Your task to perform on an android device: open sync settings in chrome Image 0: 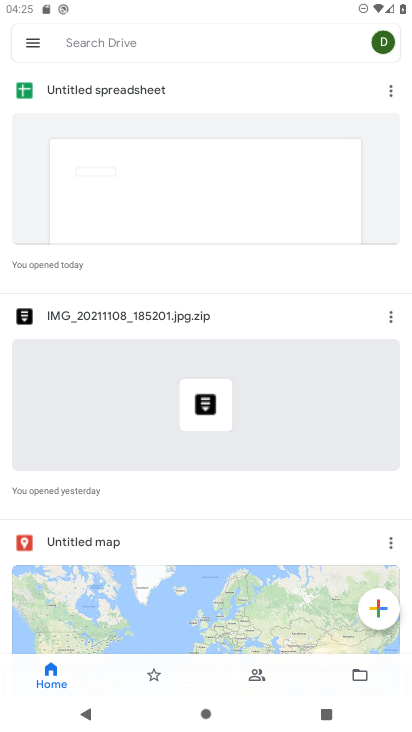
Step 0: press home button
Your task to perform on an android device: open sync settings in chrome Image 1: 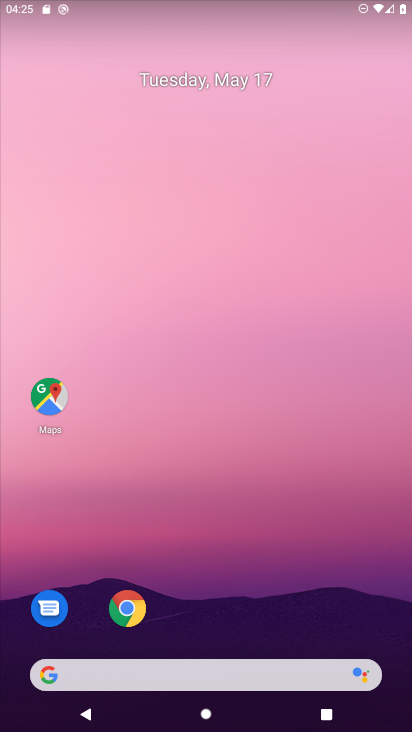
Step 1: click (134, 612)
Your task to perform on an android device: open sync settings in chrome Image 2: 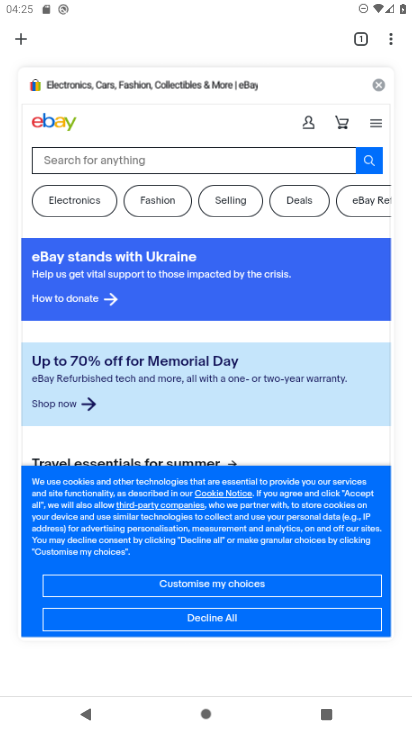
Step 2: click (387, 49)
Your task to perform on an android device: open sync settings in chrome Image 3: 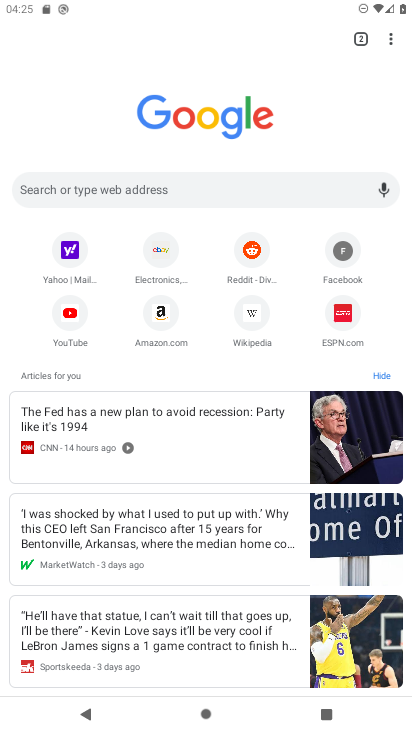
Step 3: click (394, 35)
Your task to perform on an android device: open sync settings in chrome Image 4: 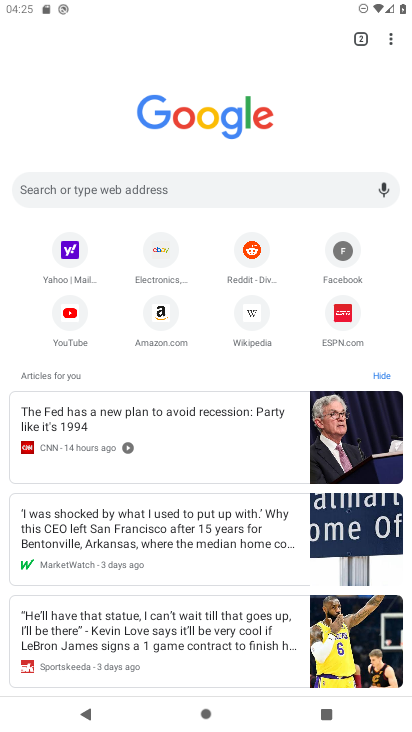
Step 4: click (391, 42)
Your task to perform on an android device: open sync settings in chrome Image 5: 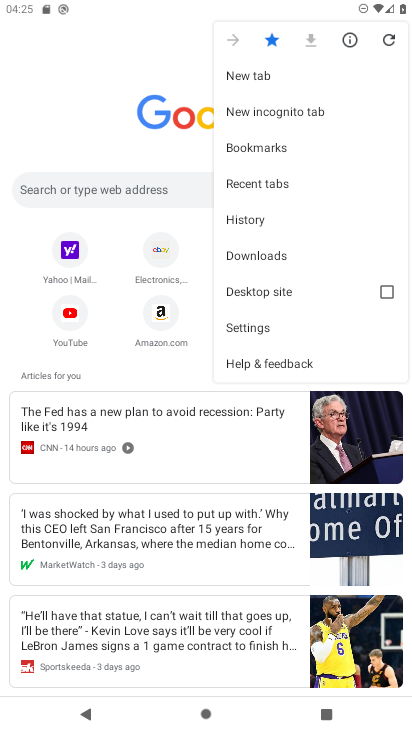
Step 5: click (255, 328)
Your task to perform on an android device: open sync settings in chrome Image 6: 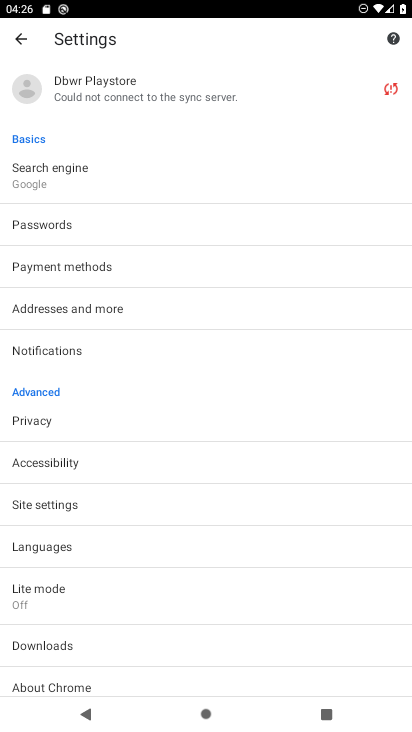
Step 6: click (143, 94)
Your task to perform on an android device: open sync settings in chrome Image 7: 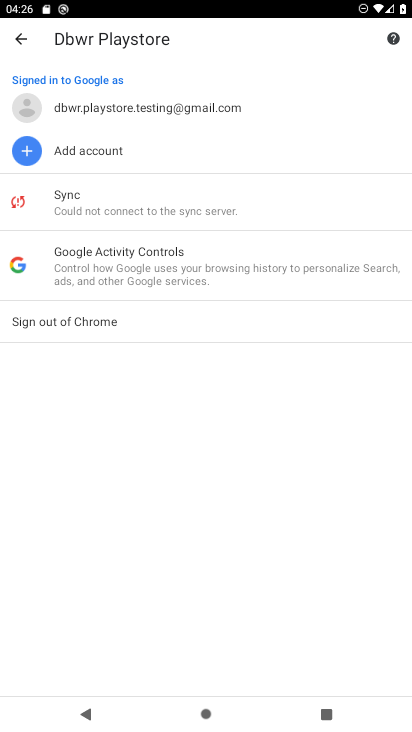
Step 7: click (104, 214)
Your task to perform on an android device: open sync settings in chrome Image 8: 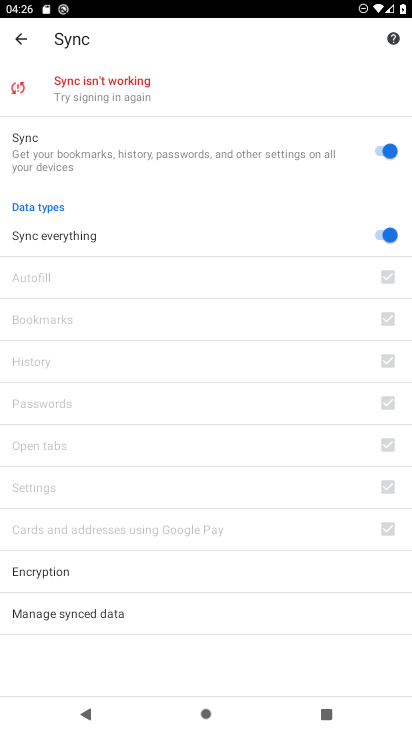
Step 8: drag from (115, 671) to (222, 135)
Your task to perform on an android device: open sync settings in chrome Image 9: 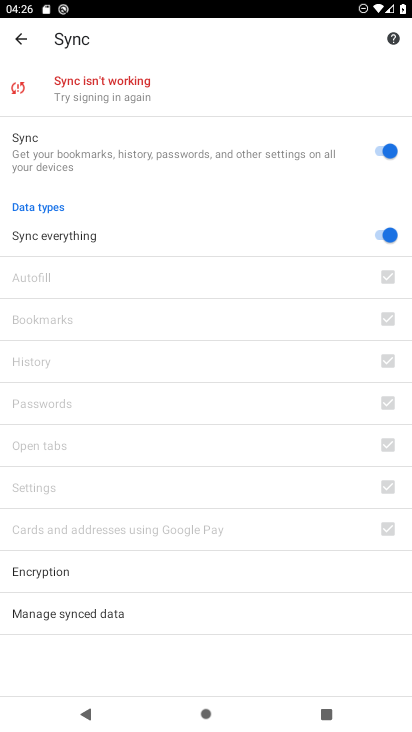
Step 9: click (123, 158)
Your task to perform on an android device: open sync settings in chrome Image 10: 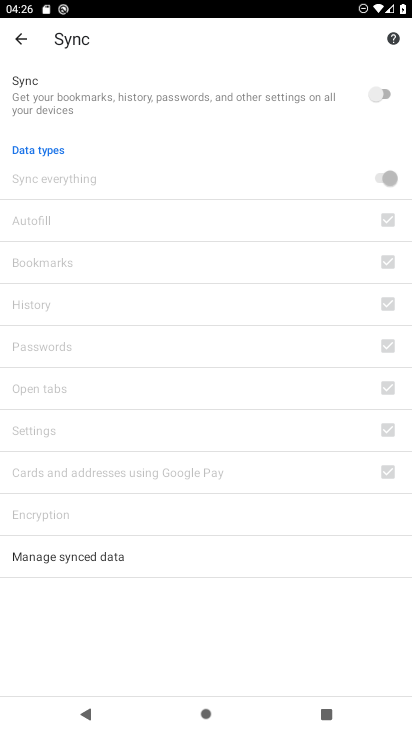
Step 10: click (74, 87)
Your task to perform on an android device: open sync settings in chrome Image 11: 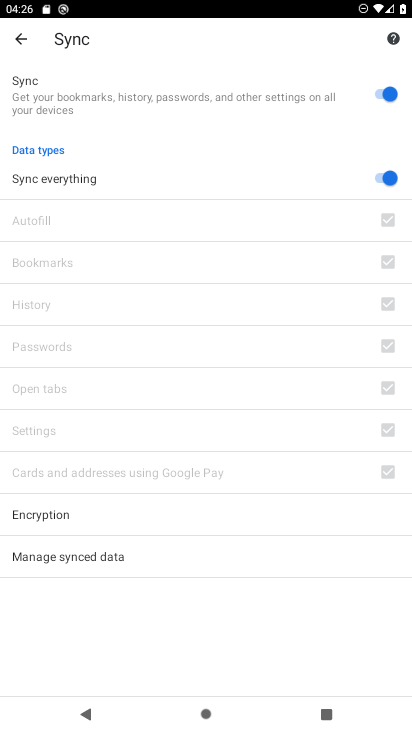
Step 11: task complete